Your task to perform on an android device: show emergency info Image 0: 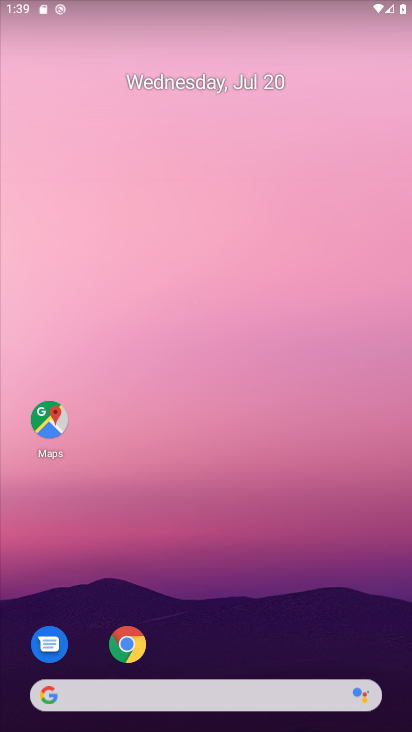
Step 0: drag from (243, 629) to (310, 238)
Your task to perform on an android device: show emergency info Image 1: 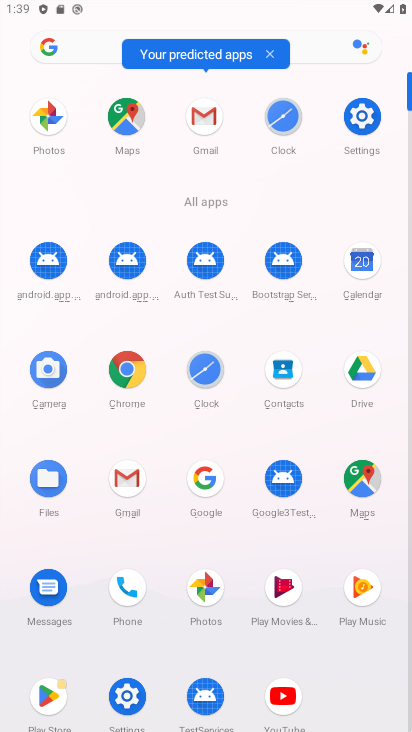
Step 1: drag from (152, 597) to (182, 483)
Your task to perform on an android device: show emergency info Image 2: 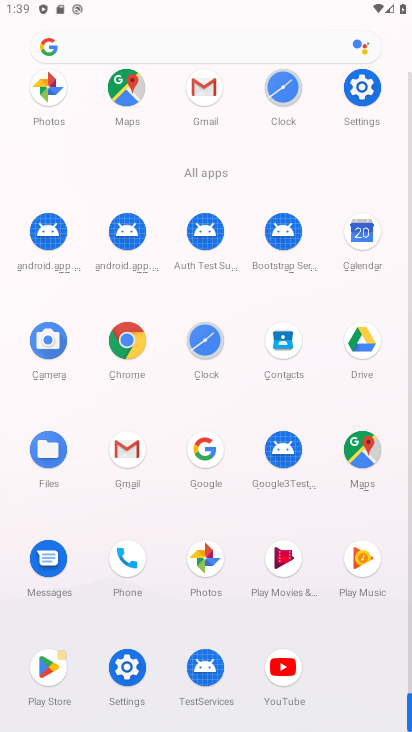
Step 2: click (127, 663)
Your task to perform on an android device: show emergency info Image 3: 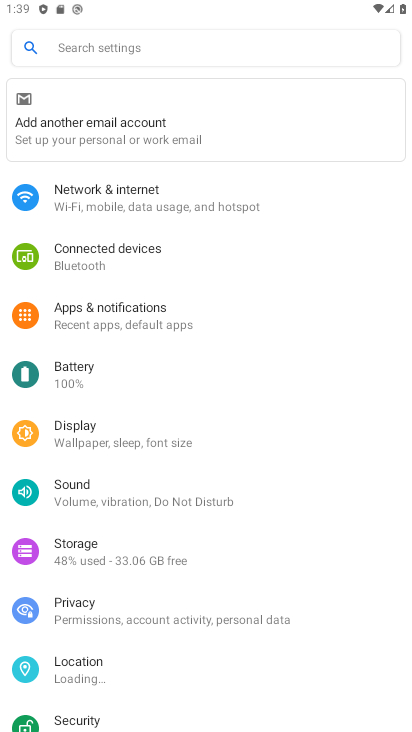
Step 3: drag from (219, 680) to (281, 263)
Your task to perform on an android device: show emergency info Image 4: 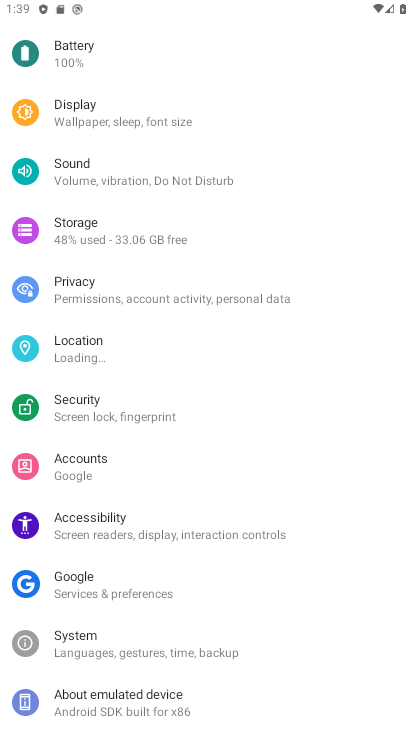
Step 4: drag from (229, 703) to (275, 422)
Your task to perform on an android device: show emergency info Image 5: 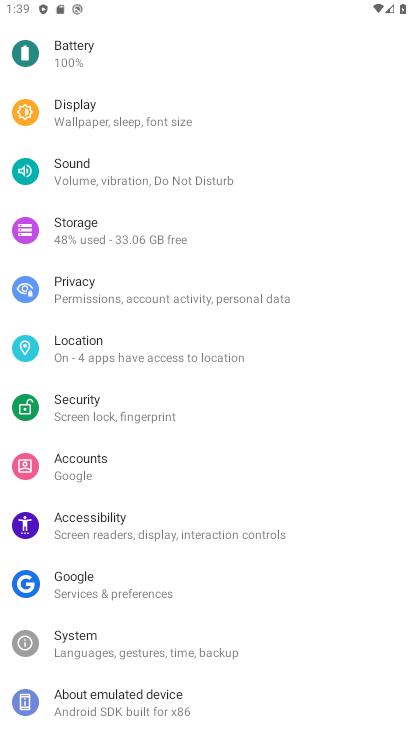
Step 5: click (202, 692)
Your task to perform on an android device: show emergency info Image 6: 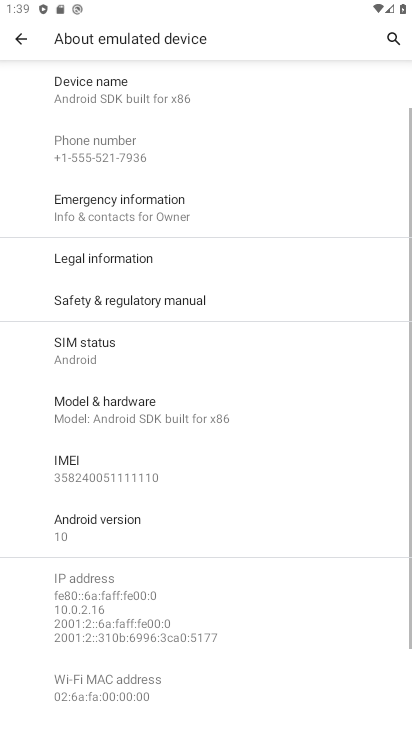
Step 6: click (202, 216)
Your task to perform on an android device: show emergency info Image 7: 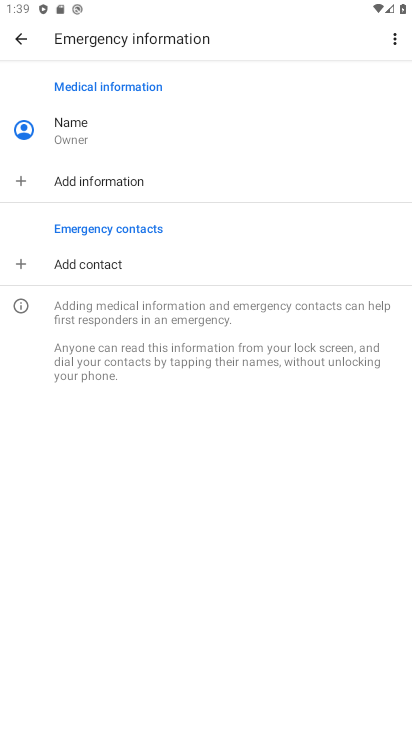
Step 7: task complete